Your task to perform on an android device: Search for pizza restaurants on Maps Image 0: 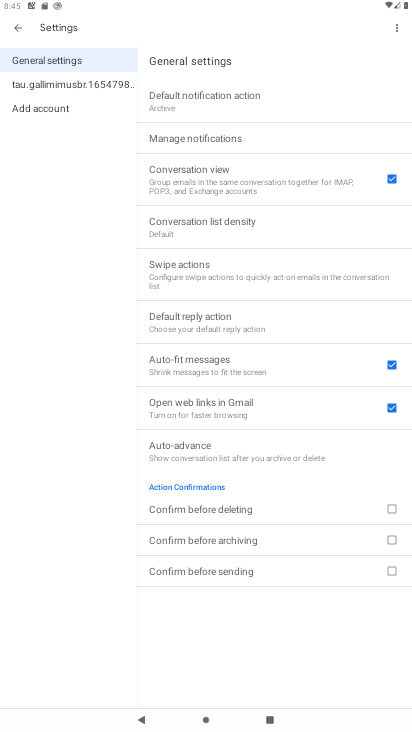
Step 0: press home button
Your task to perform on an android device: Search for pizza restaurants on Maps Image 1: 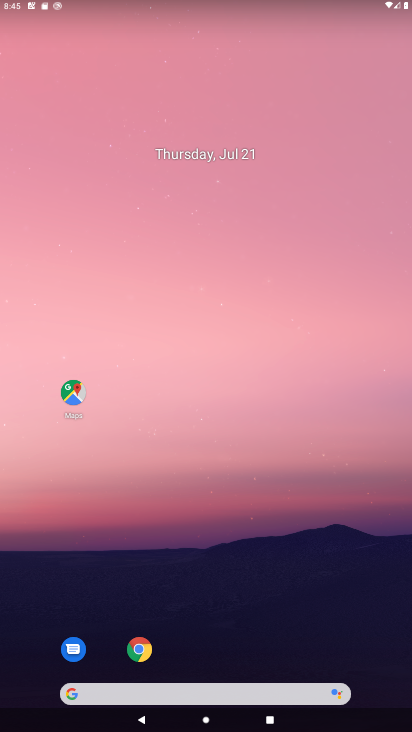
Step 1: click (73, 392)
Your task to perform on an android device: Search for pizza restaurants on Maps Image 2: 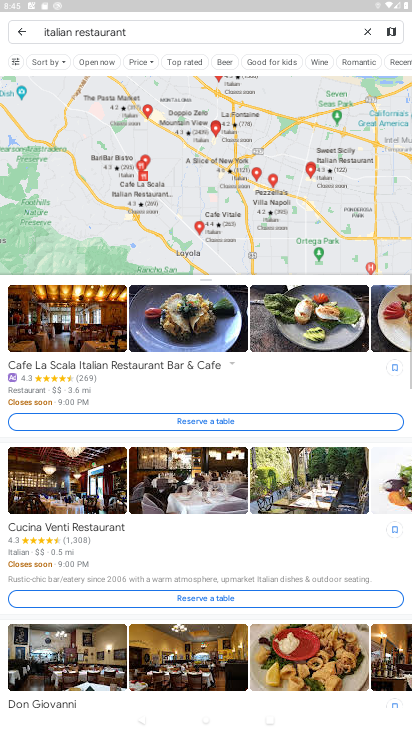
Step 2: click (364, 33)
Your task to perform on an android device: Search for pizza restaurants on Maps Image 3: 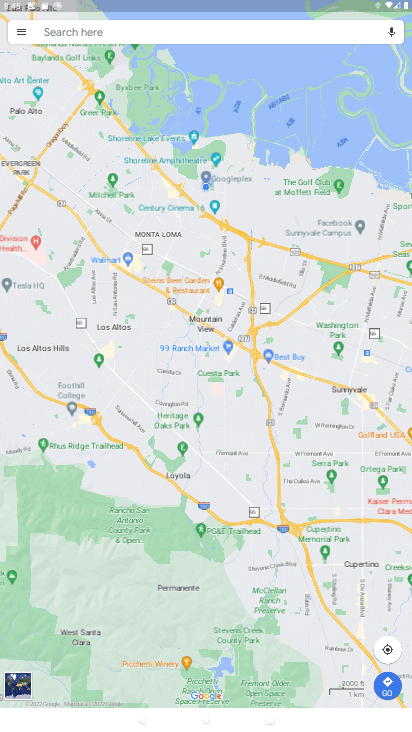
Step 3: click (206, 31)
Your task to perform on an android device: Search for pizza restaurants on Maps Image 4: 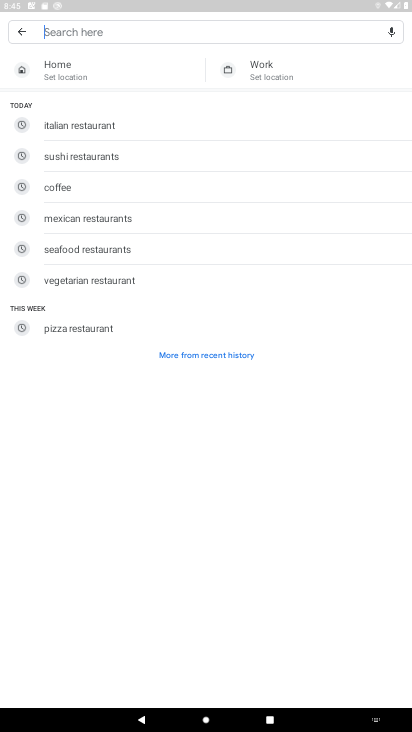
Step 4: click (102, 337)
Your task to perform on an android device: Search for pizza restaurants on Maps Image 5: 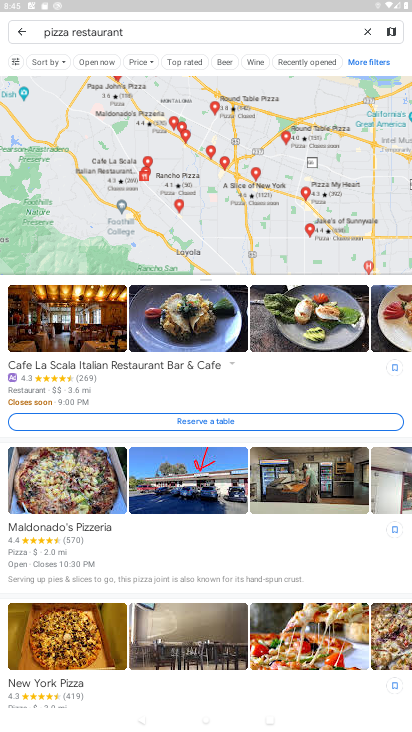
Step 5: task complete